Your task to perform on an android device: change the upload size in google photos Image 0: 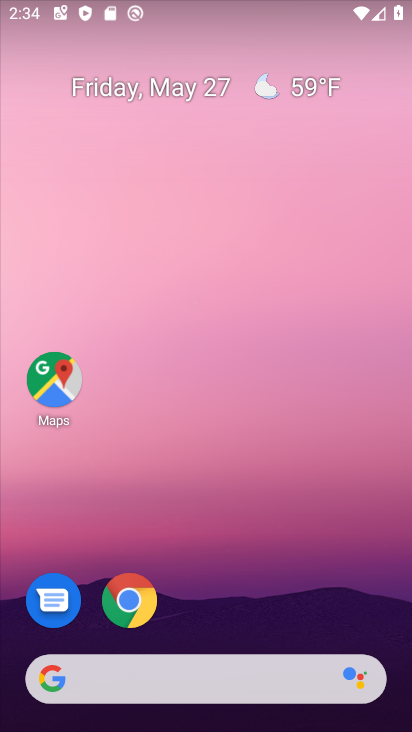
Step 0: drag from (255, 509) to (190, 33)
Your task to perform on an android device: change the upload size in google photos Image 1: 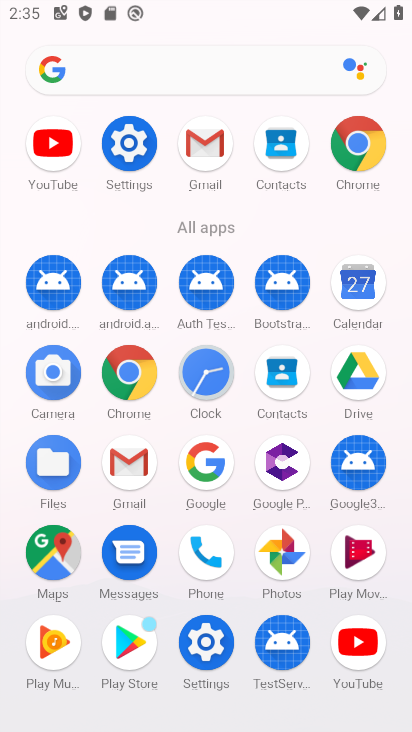
Step 1: click (281, 550)
Your task to perform on an android device: change the upload size in google photos Image 2: 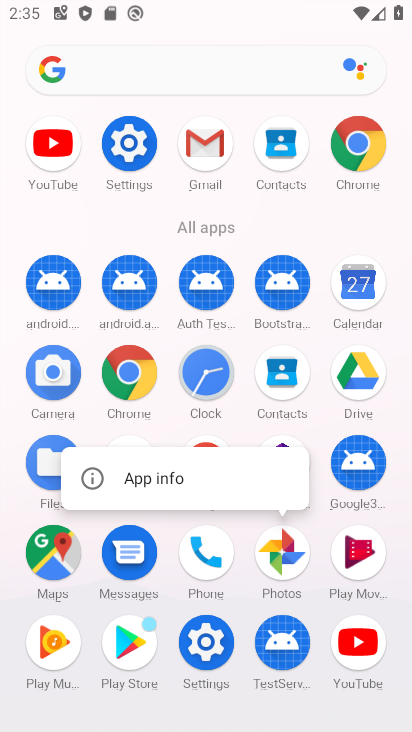
Step 2: click (281, 550)
Your task to perform on an android device: change the upload size in google photos Image 3: 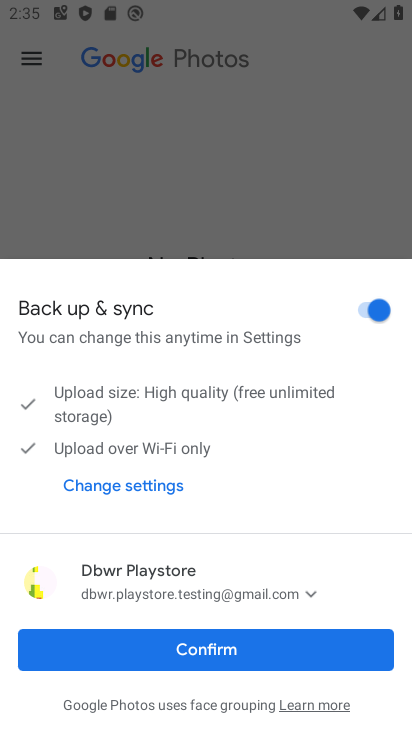
Step 3: click (210, 646)
Your task to perform on an android device: change the upload size in google photos Image 4: 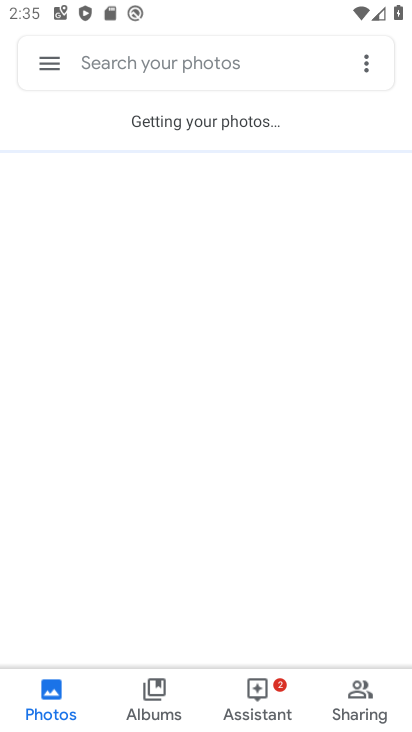
Step 4: click (49, 66)
Your task to perform on an android device: change the upload size in google photos Image 5: 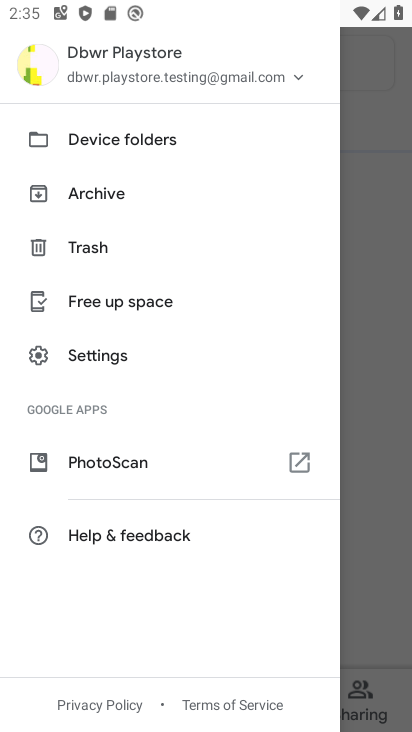
Step 5: click (121, 352)
Your task to perform on an android device: change the upload size in google photos Image 6: 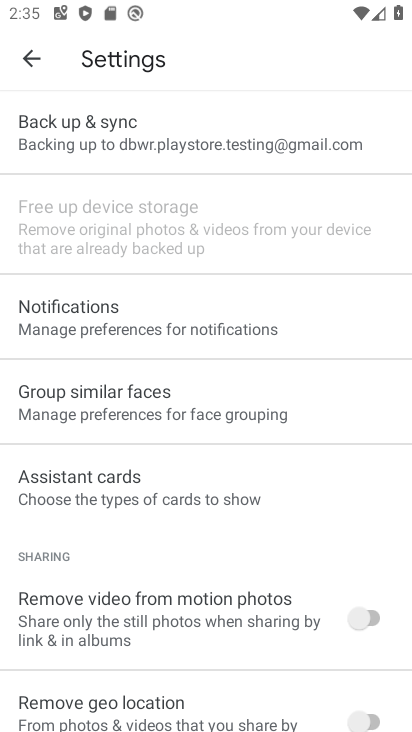
Step 6: click (198, 147)
Your task to perform on an android device: change the upload size in google photos Image 7: 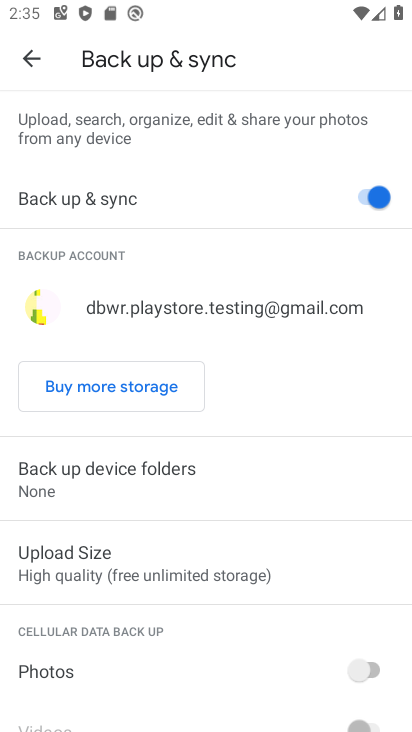
Step 7: click (70, 559)
Your task to perform on an android device: change the upload size in google photos Image 8: 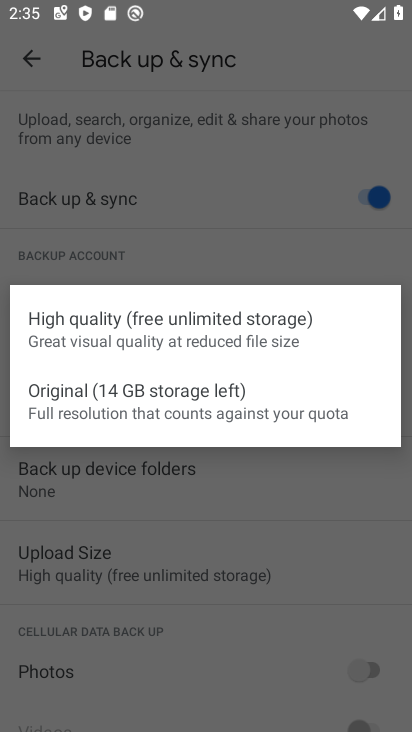
Step 8: click (146, 406)
Your task to perform on an android device: change the upload size in google photos Image 9: 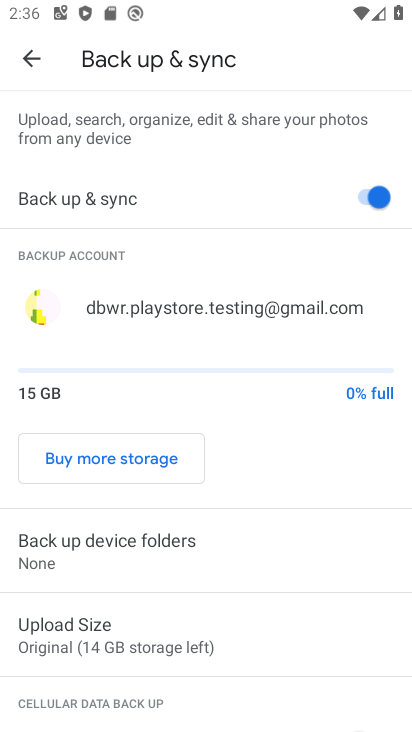
Step 9: task complete